Your task to perform on an android device: Open settings Image 0: 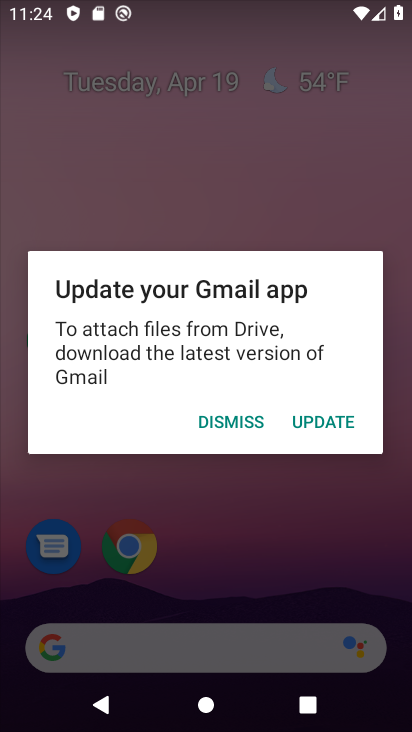
Step 0: press home button
Your task to perform on an android device: Open settings Image 1: 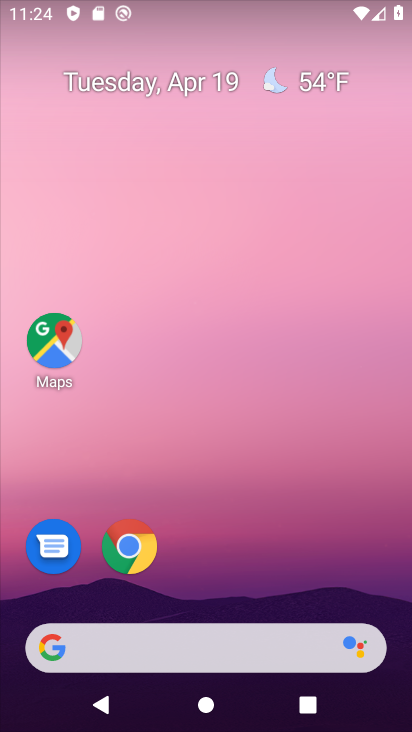
Step 1: drag from (257, 717) to (341, 0)
Your task to perform on an android device: Open settings Image 2: 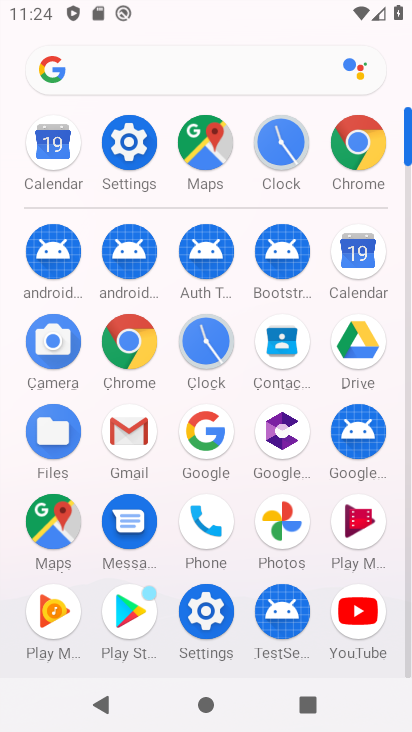
Step 2: click (227, 642)
Your task to perform on an android device: Open settings Image 3: 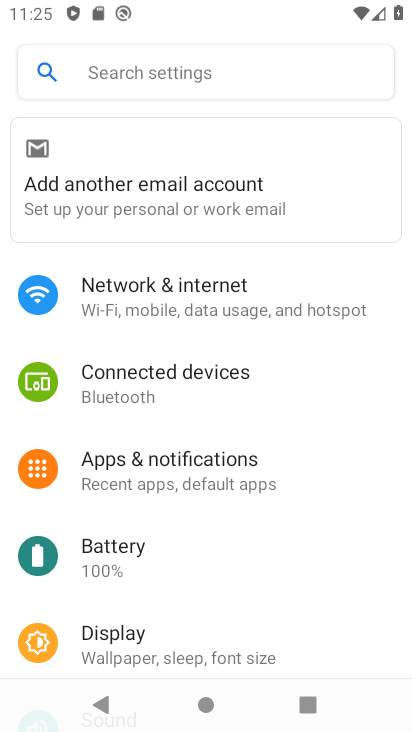
Step 3: task complete